Your task to perform on an android device: show emergency info Image 0: 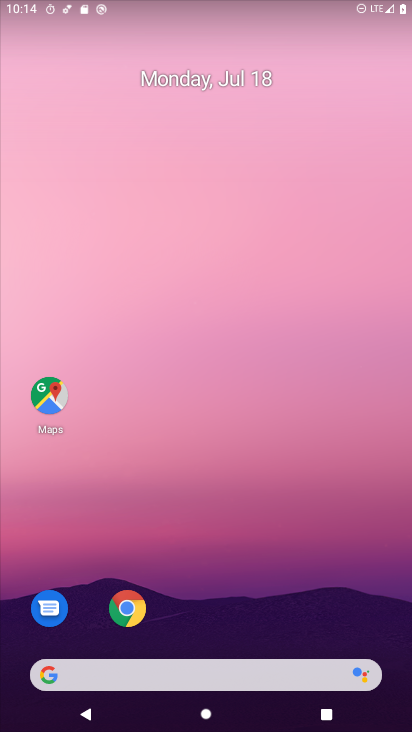
Step 0: drag from (166, 574) to (166, 291)
Your task to perform on an android device: show emergency info Image 1: 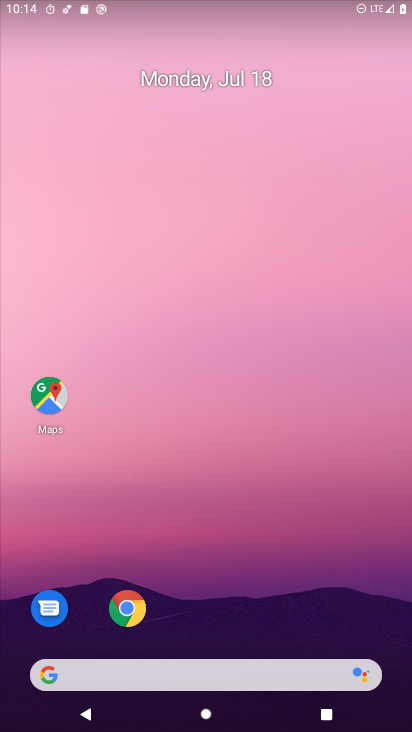
Step 1: click (219, 279)
Your task to perform on an android device: show emergency info Image 2: 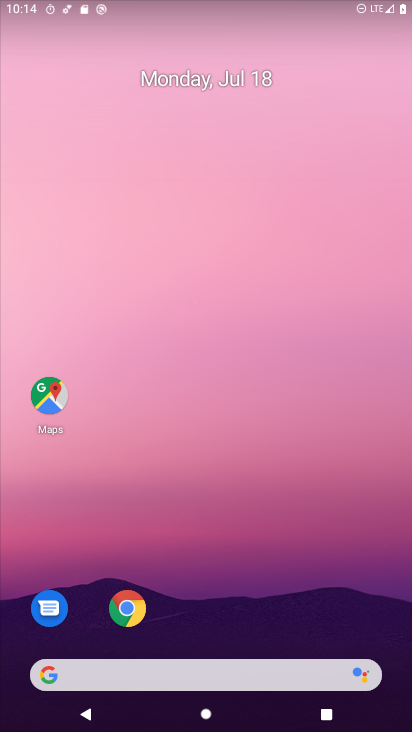
Step 2: drag from (173, 541) to (222, 204)
Your task to perform on an android device: show emergency info Image 3: 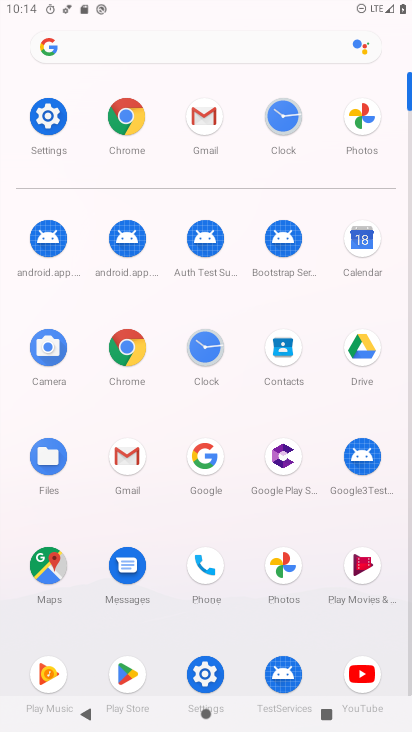
Step 3: click (58, 121)
Your task to perform on an android device: show emergency info Image 4: 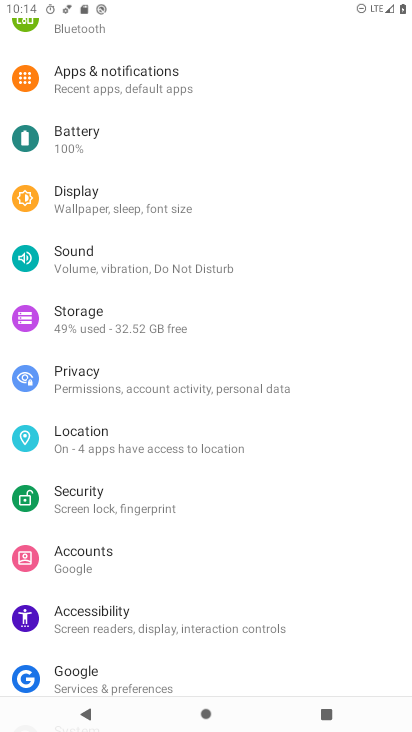
Step 4: drag from (123, 127) to (151, 406)
Your task to perform on an android device: show emergency info Image 5: 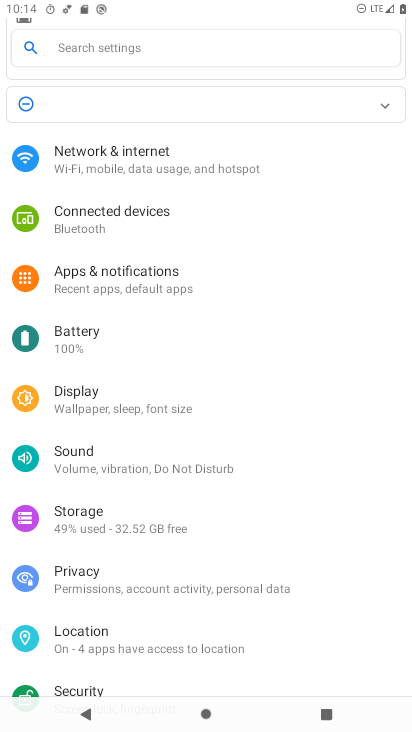
Step 5: drag from (153, 573) to (160, 320)
Your task to perform on an android device: show emergency info Image 6: 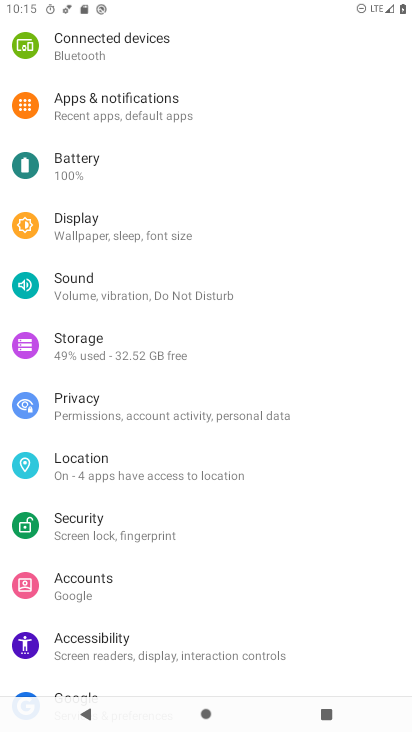
Step 6: drag from (116, 662) to (135, 407)
Your task to perform on an android device: show emergency info Image 7: 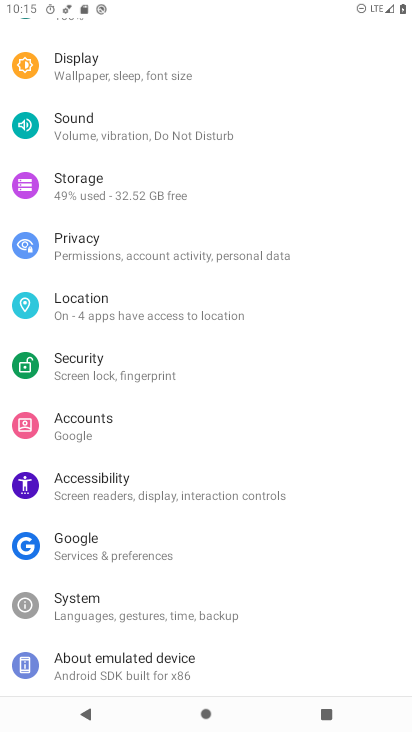
Step 7: click (82, 662)
Your task to perform on an android device: show emergency info Image 8: 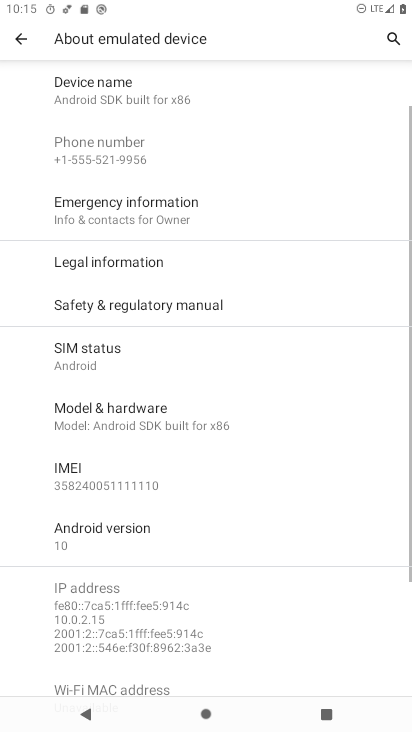
Step 8: click (112, 220)
Your task to perform on an android device: show emergency info Image 9: 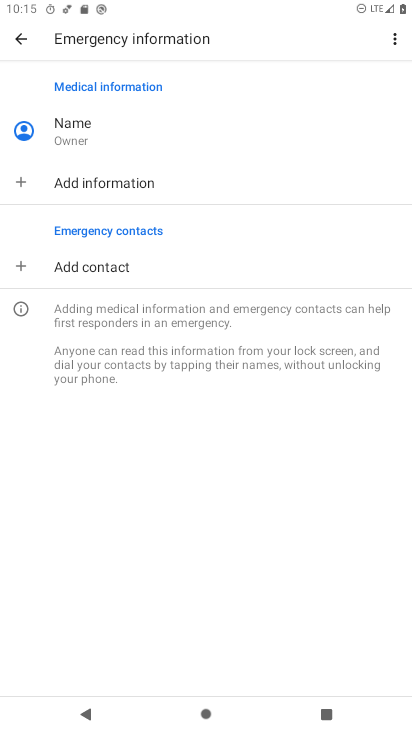
Step 9: task complete